Your task to perform on an android device: see creations saved in the google photos Image 0: 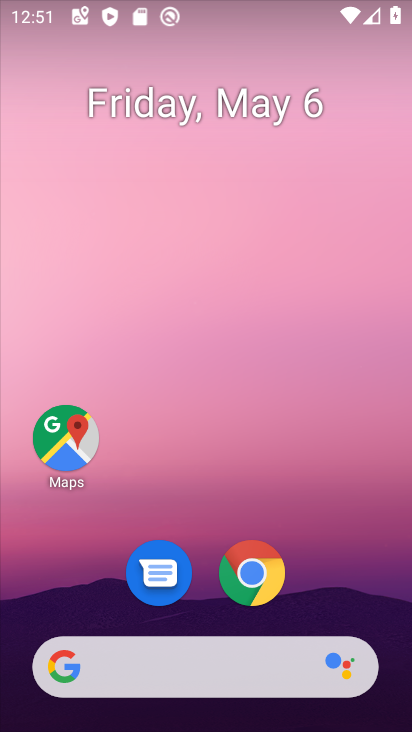
Step 0: drag from (216, 678) to (298, 76)
Your task to perform on an android device: see creations saved in the google photos Image 1: 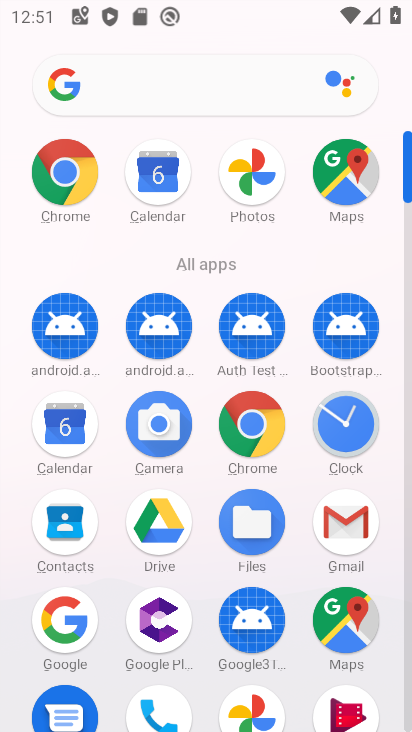
Step 1: click (257, 714)
Your task to perform on an android device: see creations saved in the google photos Image 2: 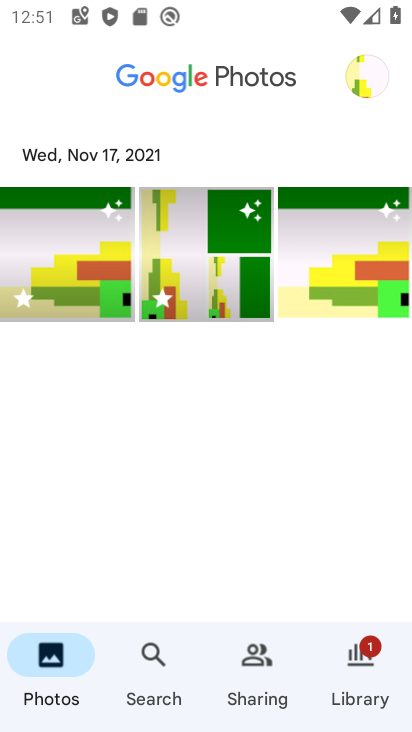
Step 2: task complete